Your task to perform on an android device: Open accessibility settings Image 0: 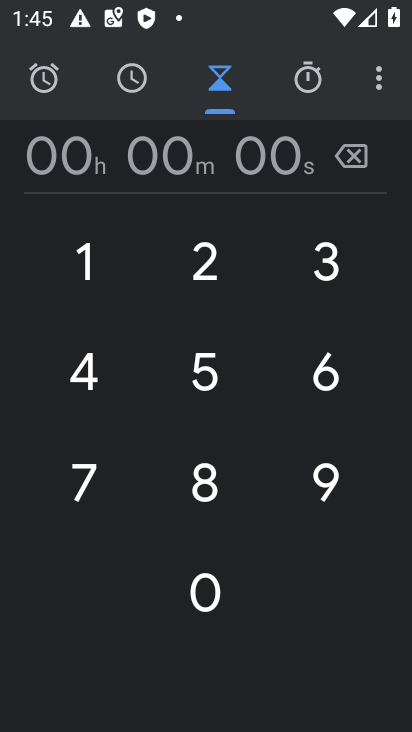
Step 0: press home button
Your task to perform on an android device: Open accessibility settings Image 1: 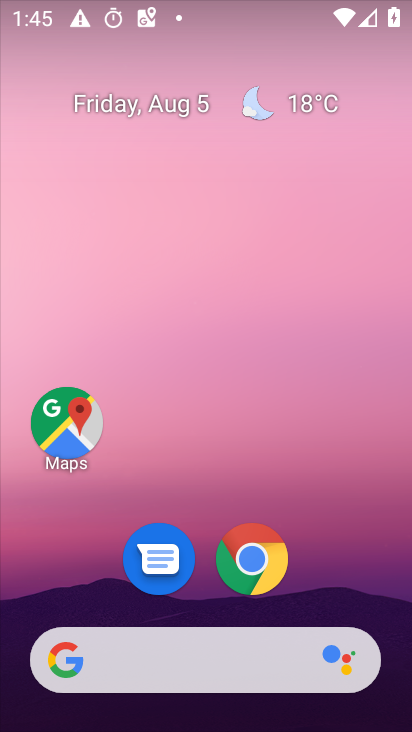
Step 1: drag from (37, 704) to (96, 329)
Your task to perform on an android device: Open accessibility settings Image 2: 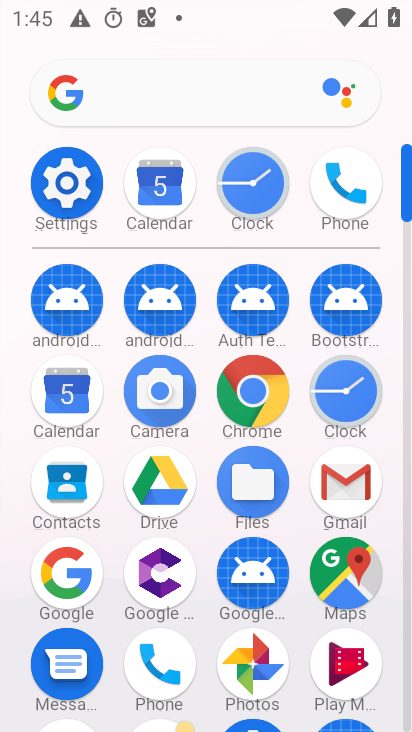
Step 2: click (84, 191)
Your task to perform on an android device: Open accessibility settings Image 3: 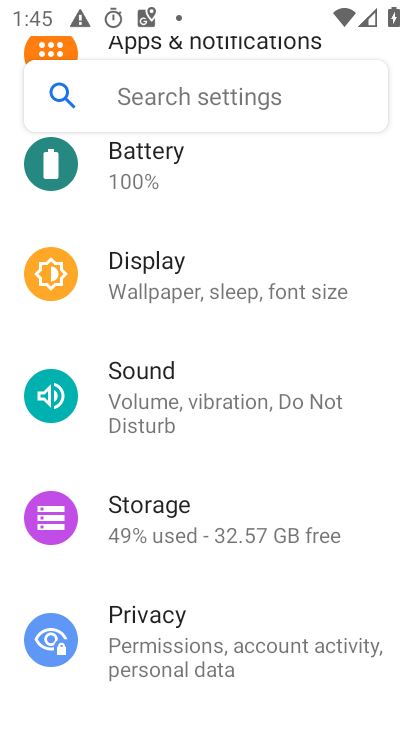
Step 3: drag from (344, 476) to (365, 2)
Your task to perform on an android device: Open accessibility settings Image 4: 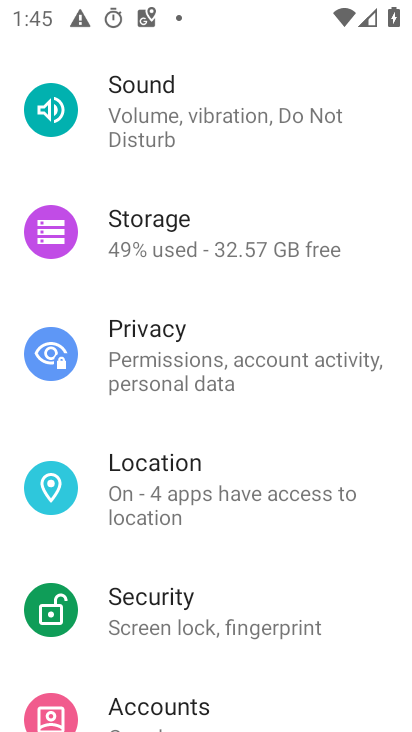
Step 4: drag from (349, 662) to (346, 550)
Your task to perform on an android device: Open accessibility settings Image 5: 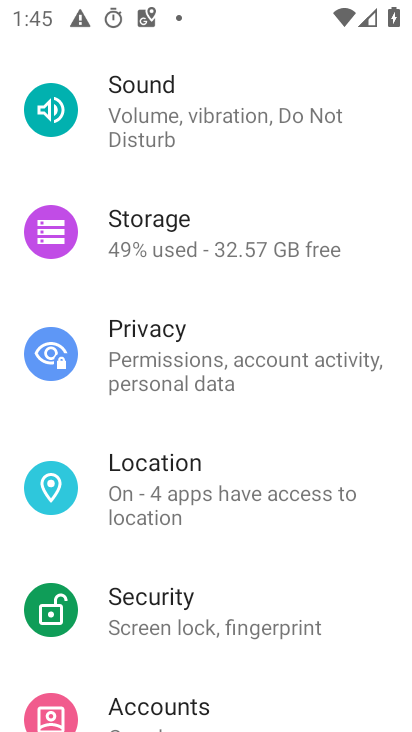
Step 5: drag from (39, 563) to (52, 411)
Your task to perform on an android device: Open accessibility settings Image 6: 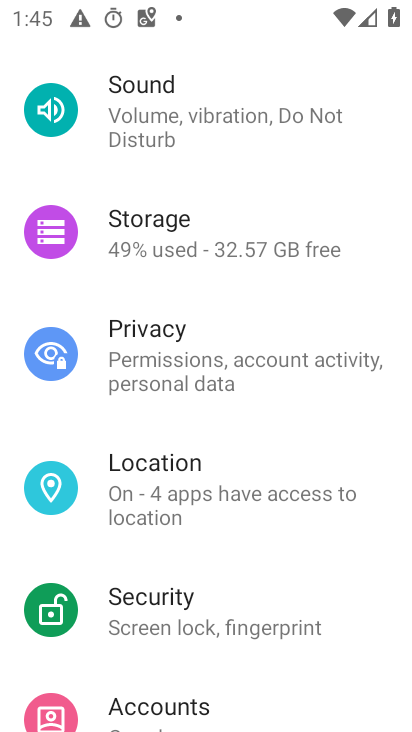
Step 6: drag from (383, 681) to (345, 76)
Your task to perform on an android device: Open accessibility settings Image 7: 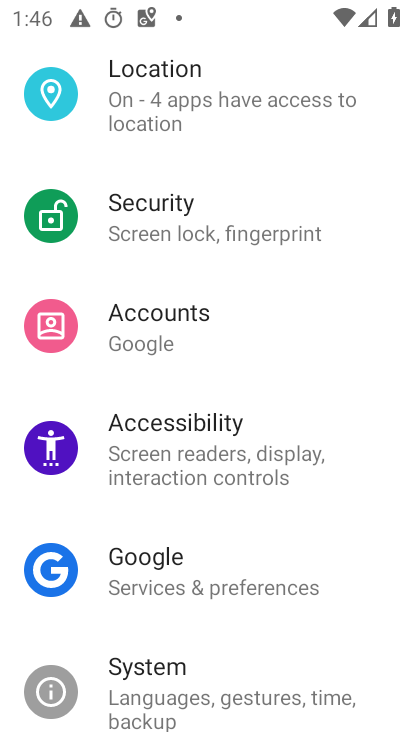
Step 7: click (175, 455)
Your task to perform on an android device: Open accessibility settings Image 8: 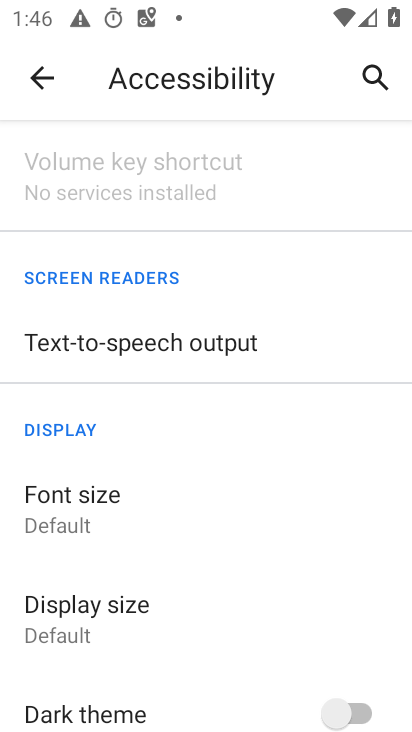
Step 8: task complete